Your task to perform on an android device: Open Google Maps Image 0: 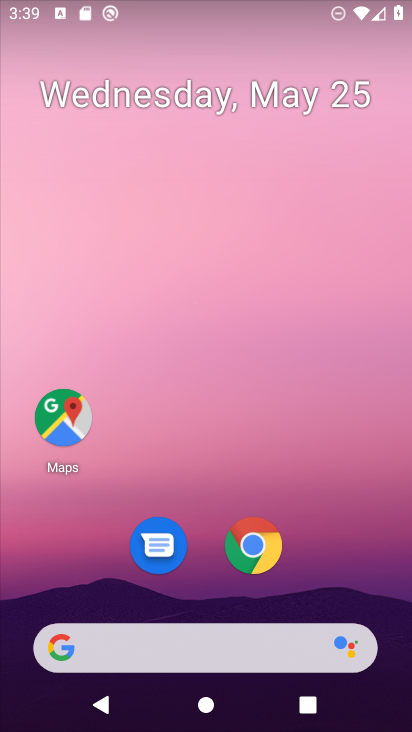
Step 0: click (54, 406)
Your task to perform on an android device: Open Google Maps Image 1: 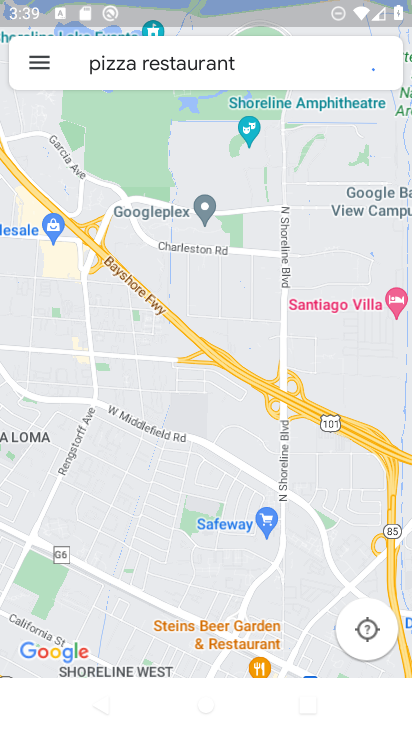
Step 1: task complete